Your task to perform on an android device: Go to ESPN.com Image 0: 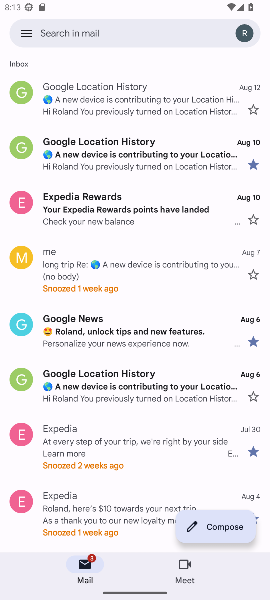
Step 0: press home button
Your task to perform on an android device: Go to ESPN.com Image 1: 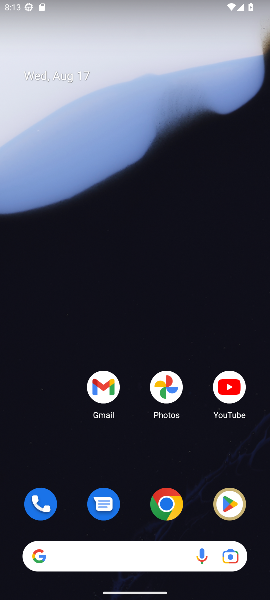
Step 1: drag from (157, 459) to (141, 5)
Your task to perform on an android device: Go to ESPN.com Image 2: 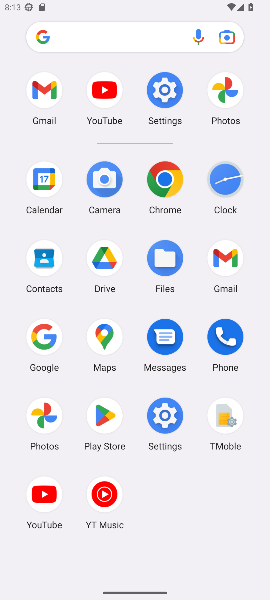
Step 2: click (171, 186)
Your task to perform on an android device: Go to ESPN.com Image 3: 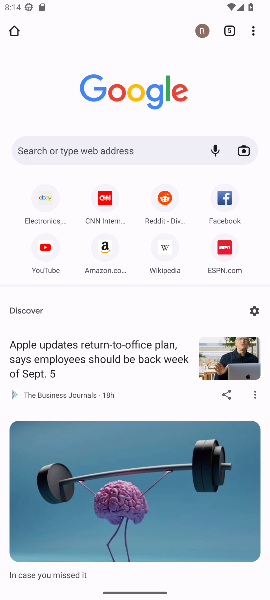
Step 3: click (233, 247)
Your task to perform on an android device: Go to ESPN.com Image 4: 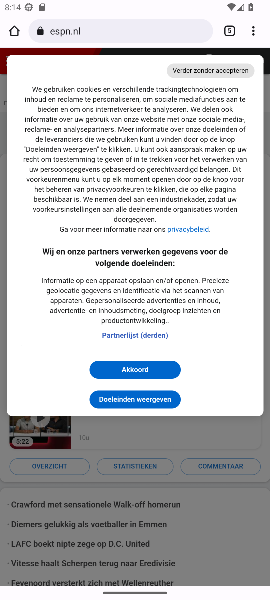
Step 4: click (149, 369)
Your task to perform on an android device: Go to ESPN.com Image 5: 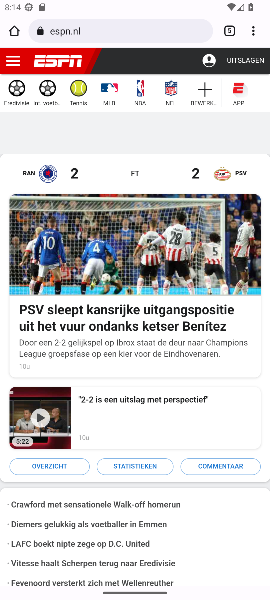
Step 5: task complete